Your task to perform on an android device: Open my contact list Image 0: 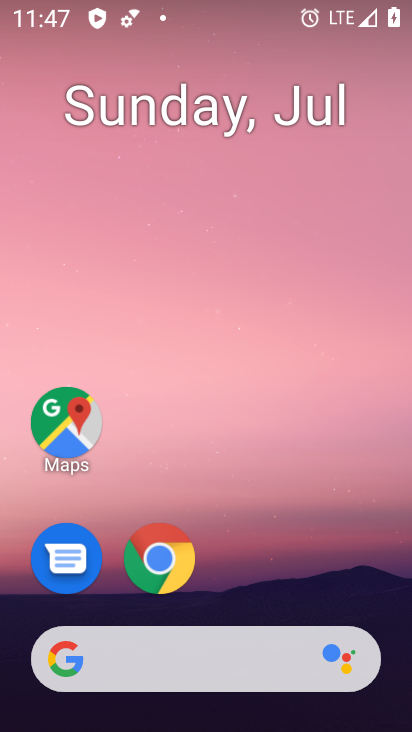
Step 0: drag from (252, 527) to (356, 12)
Your task to perform on an android device: Open my contact list Image 1: 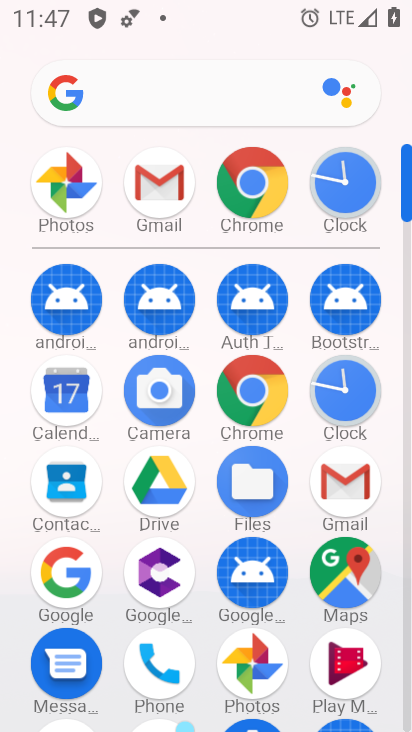
Step 1: click (50, 546)
Your task to perform on an android device: Open my contact list Image 2: 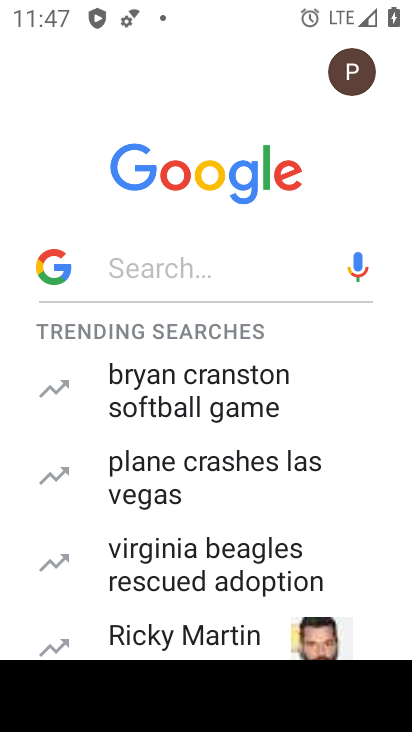
Step 2: press back button
Your task to perform on an android device: Open my contact list Image 3: 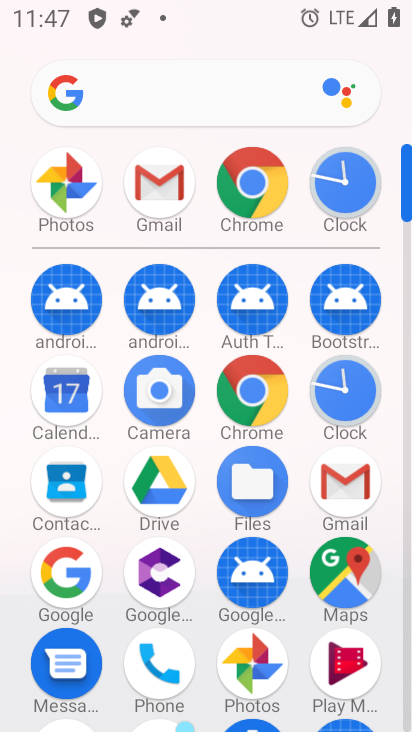
Step 3: click (71, 485)
Your task to perform on an android device: Open my contact list Image 4: 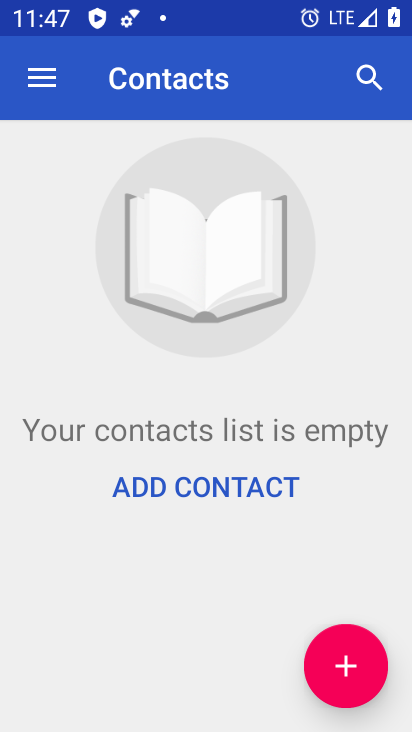
Step 4: task complete